Your task to perform on an android device: change the clock style Image 0: 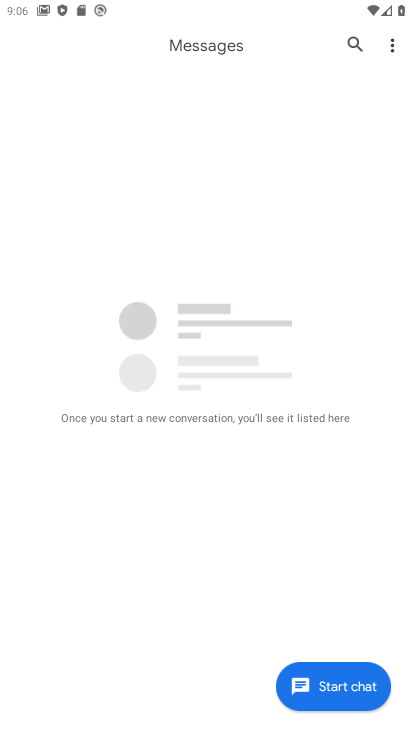
Step 0: press home button
Your task to perform on an android device: change the clock style Image 1: 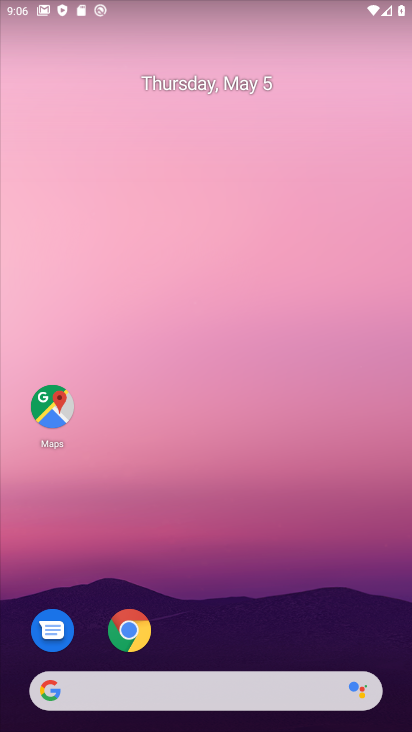
Step 1: drag from (247, 550) to (112, 147)
Your task to perform on an android device: change the clock style Image 2: 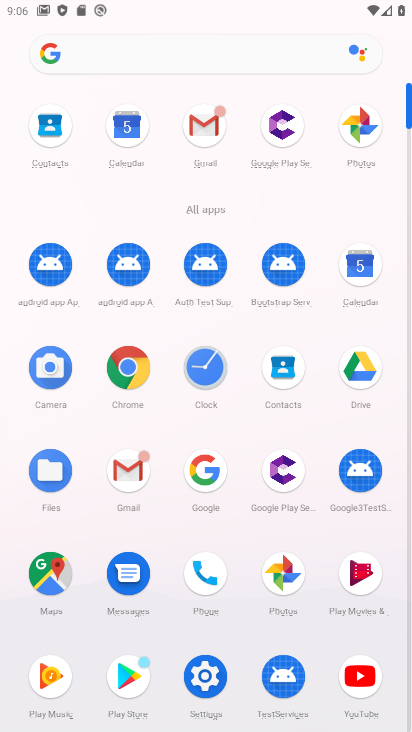
Step 2: click (204, 373)
Your task to perform on an android device: change the clock style Image 3: 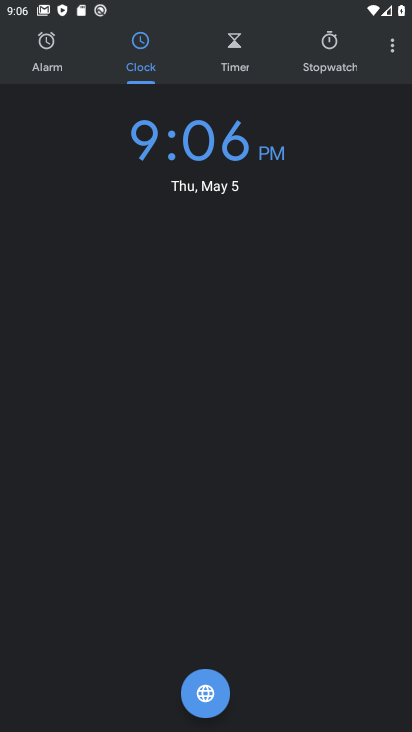
Step 3: click (391, 44)
Your task to perform on an android device: change the clock style Image 4: 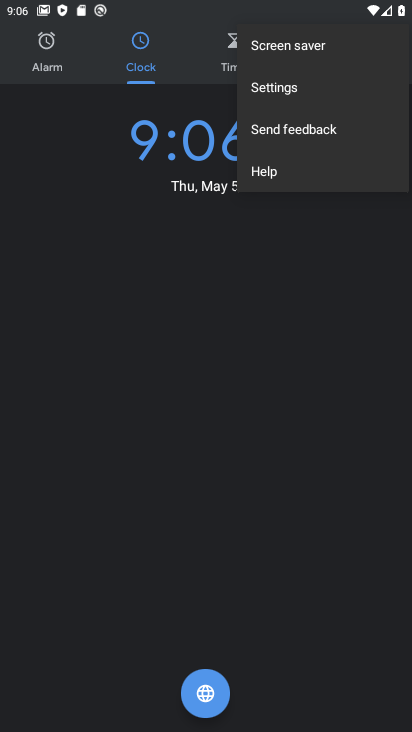
Step 4: click (279, 90)
Your task to perform on an android device: change the clock style Image 5: 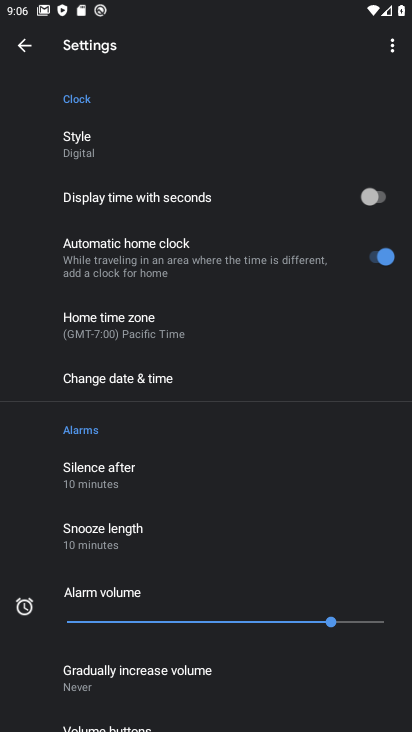
Step 5: click (85, 151)
Your task to perform on an android device: change the clock style Image 6: 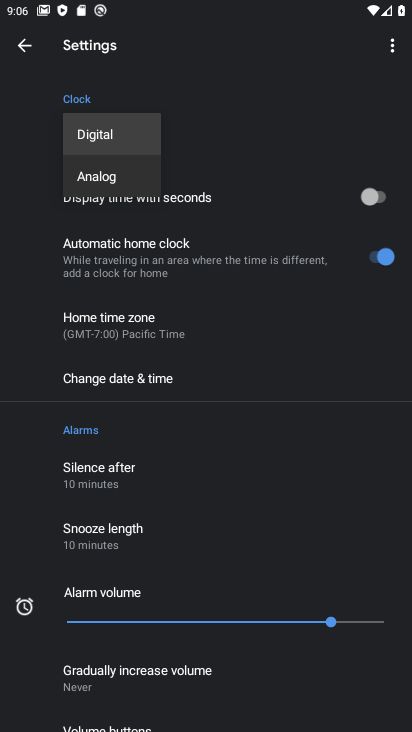
Step 6: click (106, 174)
Your task to perform on an android device: change the clock style Image 7: 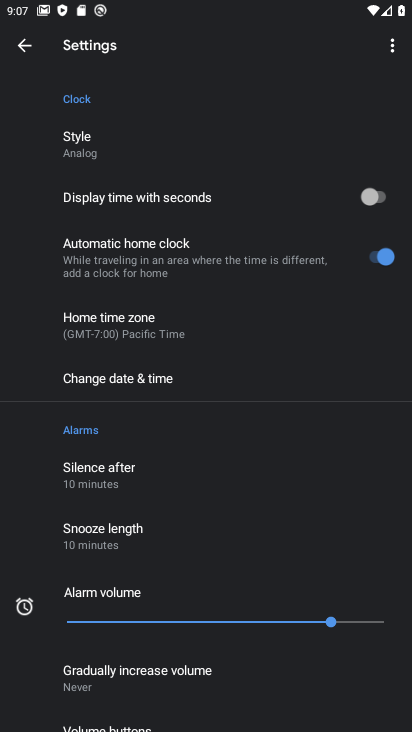
Step 7: task complete